Your task to perform on an android device: Search for Mexican restaurants on Maps Image 0: 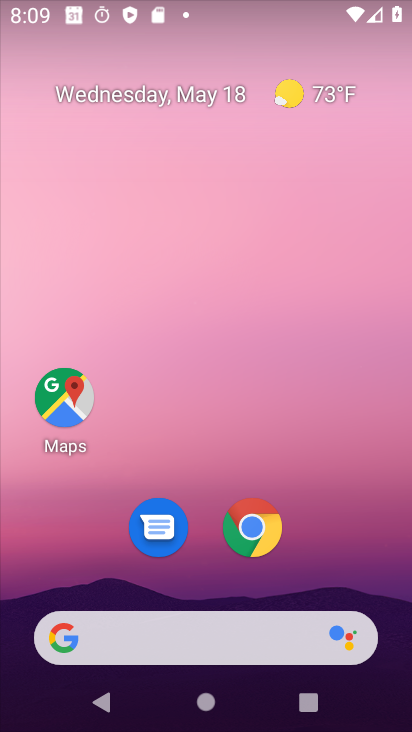
Step 0: click (81, 414)
Your task to perform on an android device: Search for Mexican restaurants on Maps Image 1: 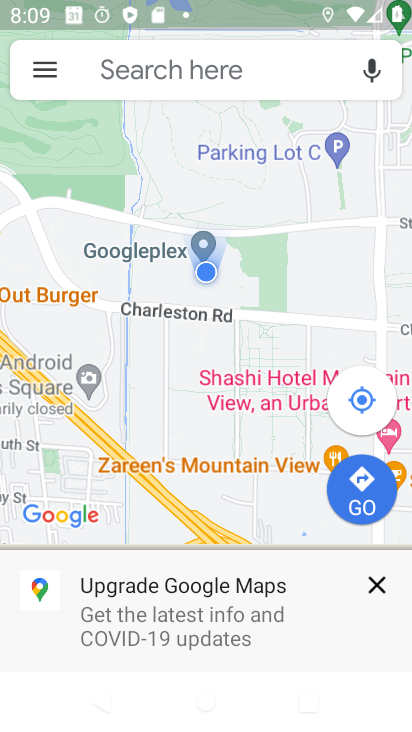
Step 1: click (140, 85)
Your task to perform on an android device: Search for Mexican restaurants on Maps Image 2: 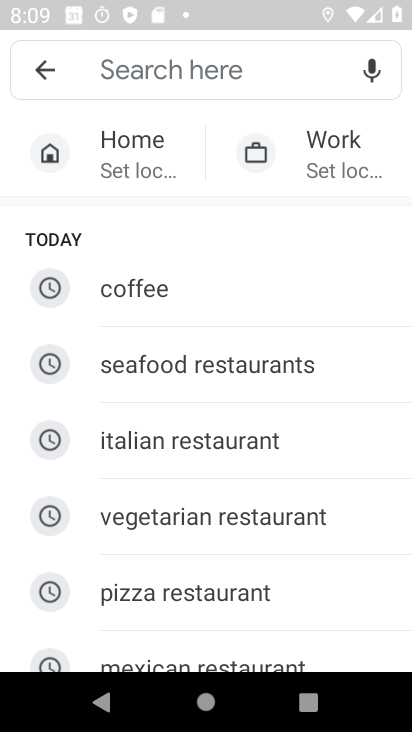
Step 2: type "Mexican restaurants"
Your task to perform on an android device: Search for Mexican restaurants on Maps Image 3: 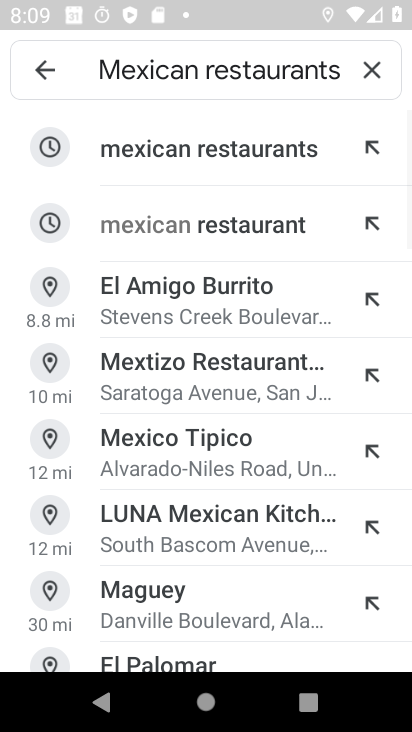
Step 3: click (177, 146)
Your task to perform on an android device: Search for Mexican restaurants on Maps Image 4: 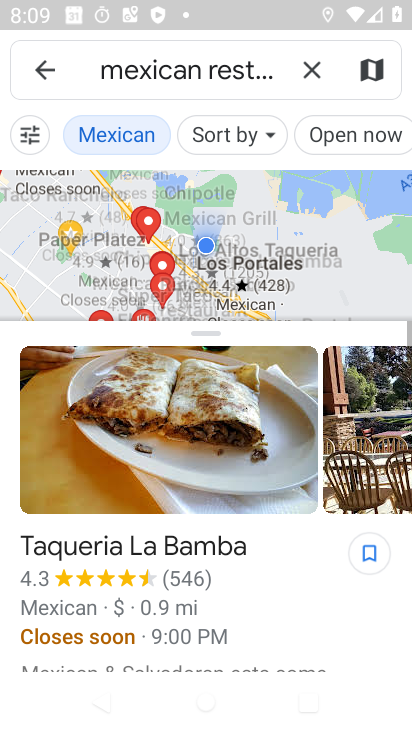
Step 4: task complete